Your task to perform on an android device: turn on notifications settings in the gmail app Image 0: 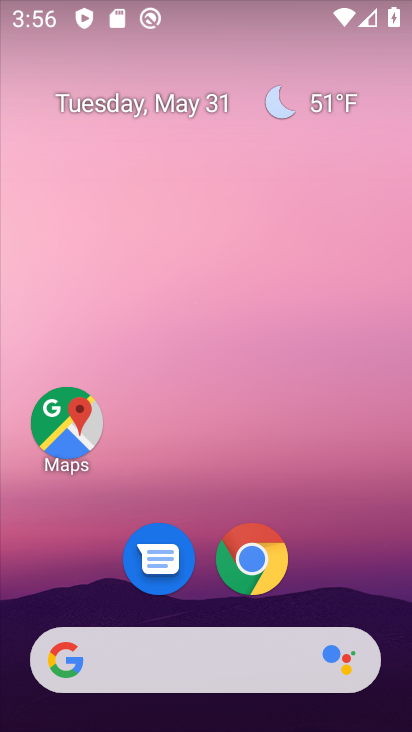
Step 0: drag from (315, 593) to (281, 54)
Your task to perform on an android device: turn on notifications settings in the gmail app Image 1: 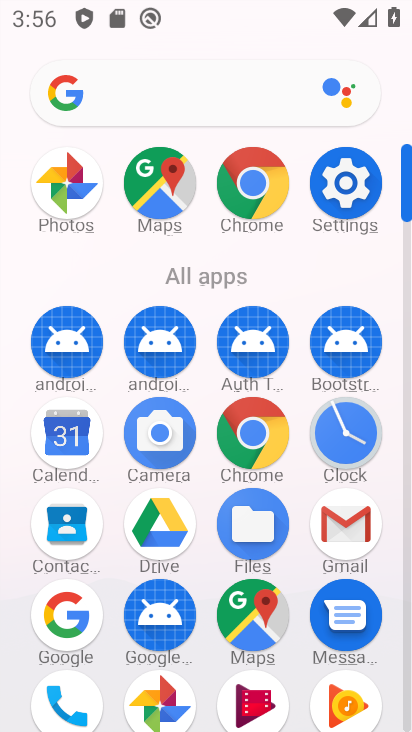
Step 1: click (342, 531)
Your task to perform on an android device: turn on notifications settings in the gmail app Image 2: 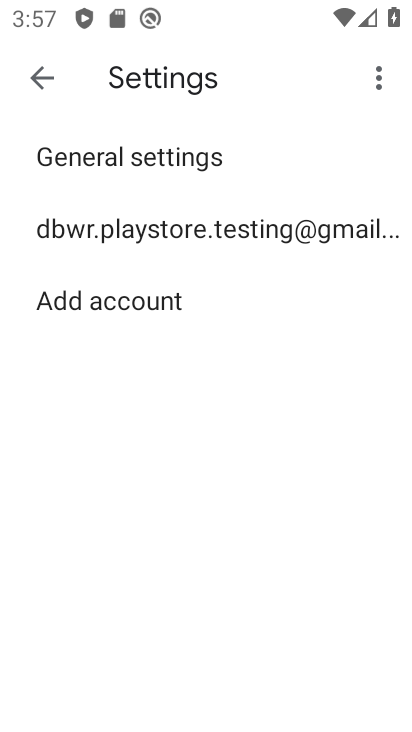
Step 2: click (77, 226)
Your task to perform on an android device: turn on notifications settings in the gmail app Image 3: 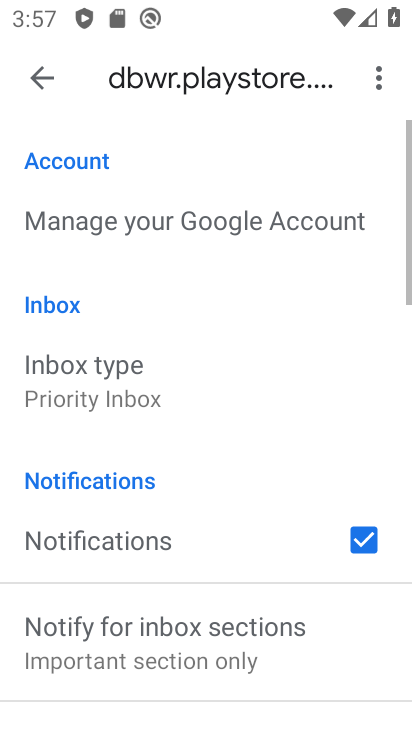
Step 3: drag from (136, 616) to (168, 195)
Your task to perform on an android device: turn on notifications settings in the gmail app Image 4: 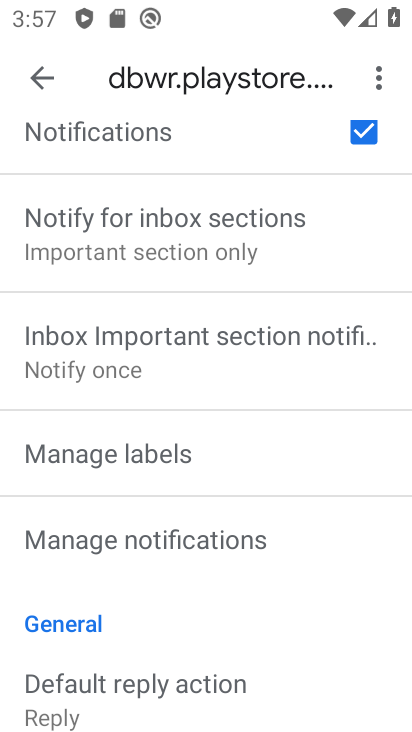
Step 4: click (121, 531)
Your task to perform on an android device: turn on notifications settings in the gmail app Image 5: 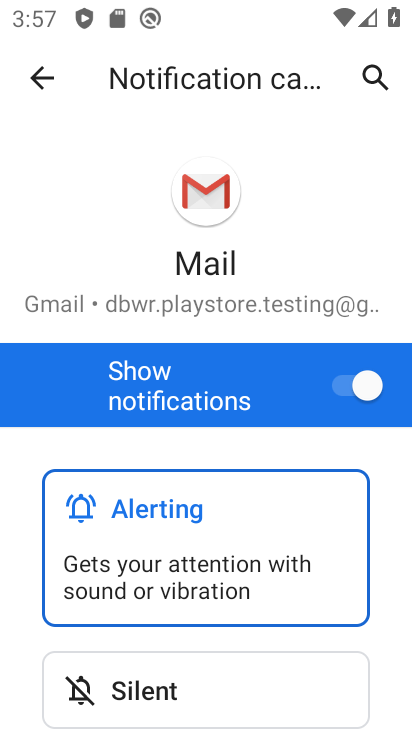
Step 5: task complete